Your task to perform on an android device: turn off javascript in the chrome app Image 0: 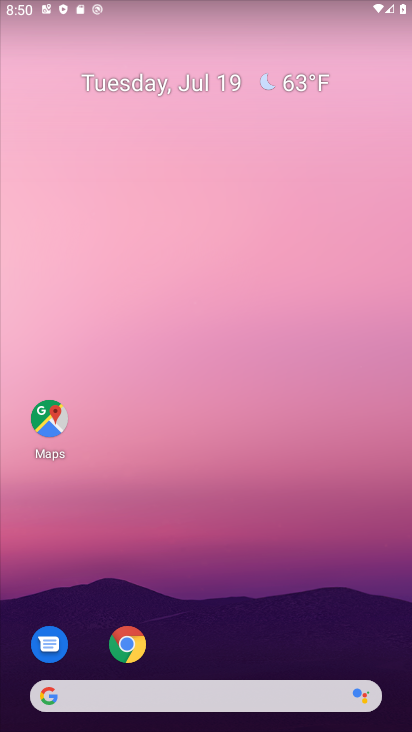
Step 0: drag from (190, 599) to (256, 12)
Your task to perform on an android device: turn off javascript in the chrome app Image 1: 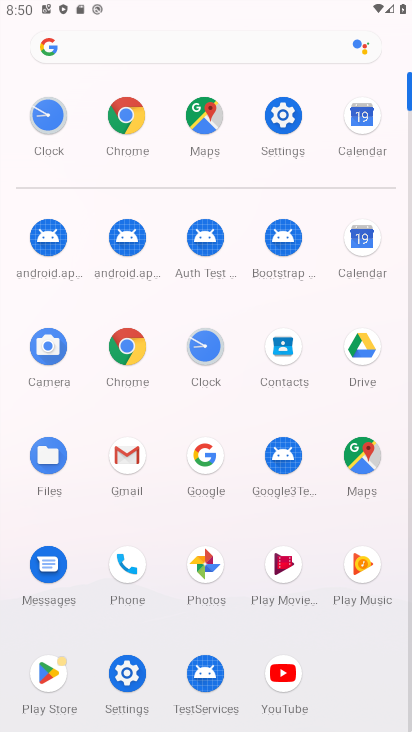
Step 1: click (122, 116)
Your task to perform on an android device: turn off javascript in the chrome app Image 2: 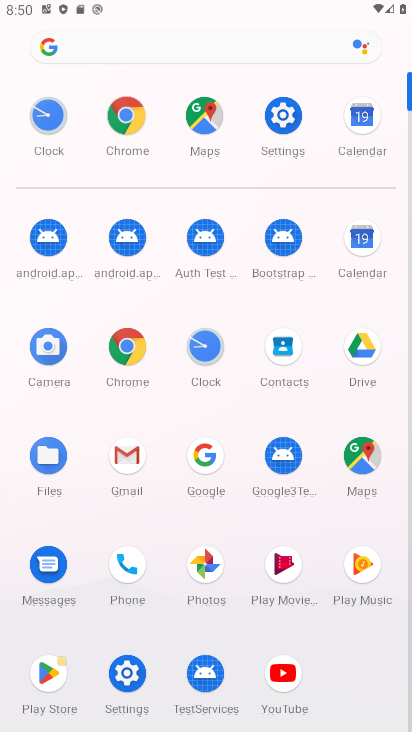
Step 2: click (127, 109)
Your task to perform on an android device: turn off javascript in the chrome app Image 3: 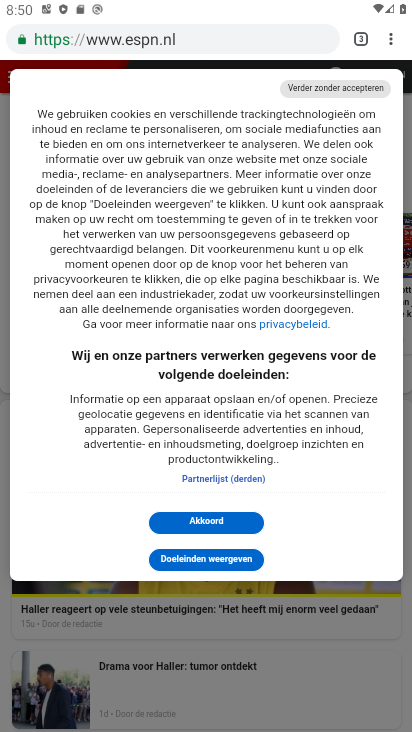
Step 3: drag from (390, 39) to (254, 476)
Your task to perform on an android device: turn off javascript in the chrome app Image 4: 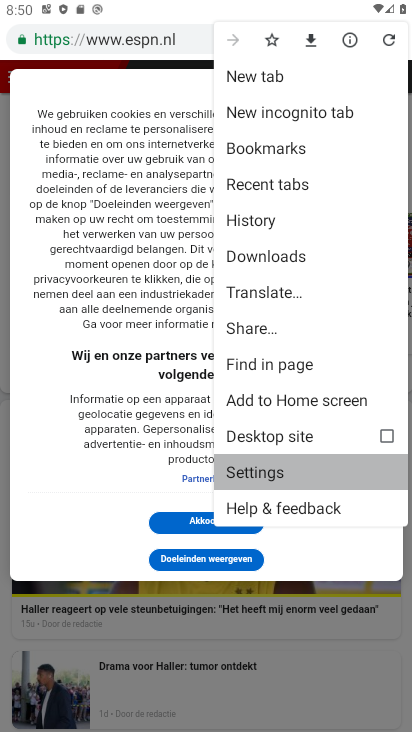
Step 4: click (261, 473)
Your task to perform on an android device: turn off javascript in the chrome app Image 5: 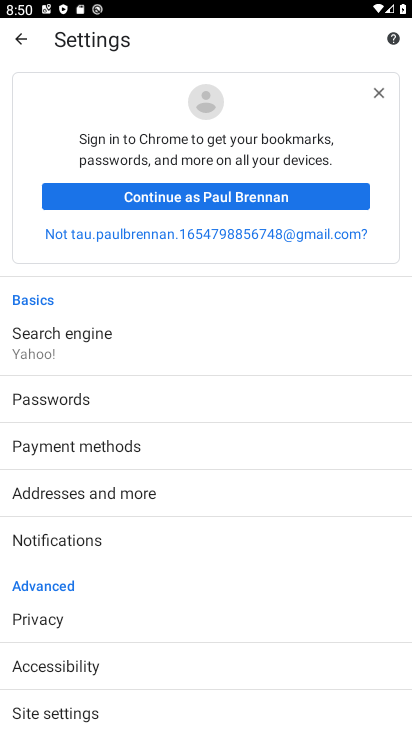
Step 5: drag from (113, 469) to (125, 245)
Your task to perform on an android device: turn off javascript in the chrome app Image 6: 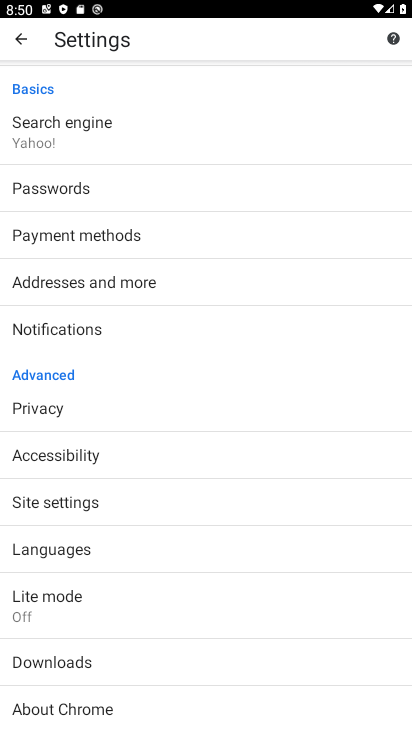
Step 6: click (36, 503)
Your task to perform on an android device: turn off javascript in the chrome app Image 7: 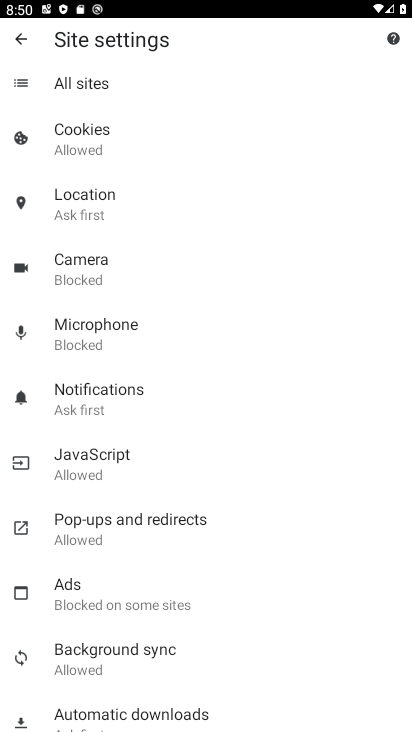
Step 7: click (88, 472)
Your task to perform on an android device: turn off javascript in the chrome app Image 8: 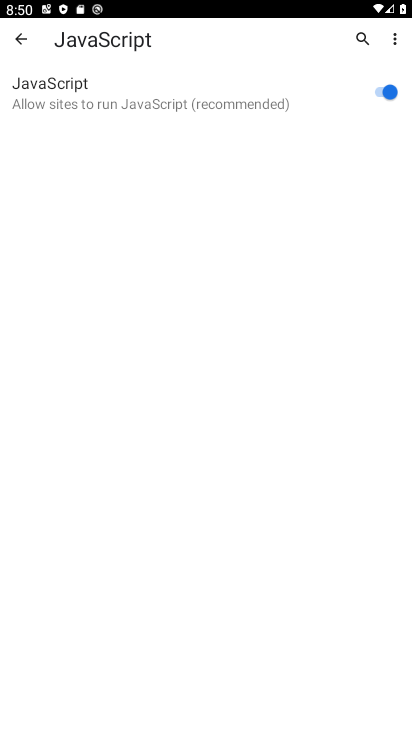
Step 8: click (391, 89)
Your task to perform on an android device: turn off javascript in the chrome app Image 9: 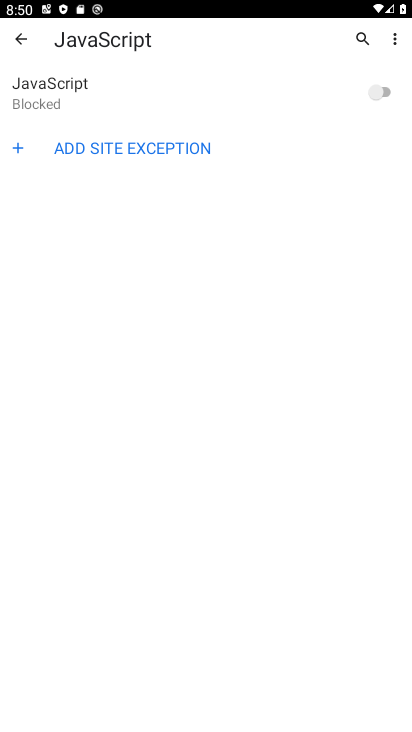
Step 9: task complete